Your task to perform on an android device: turn off location Image 0: 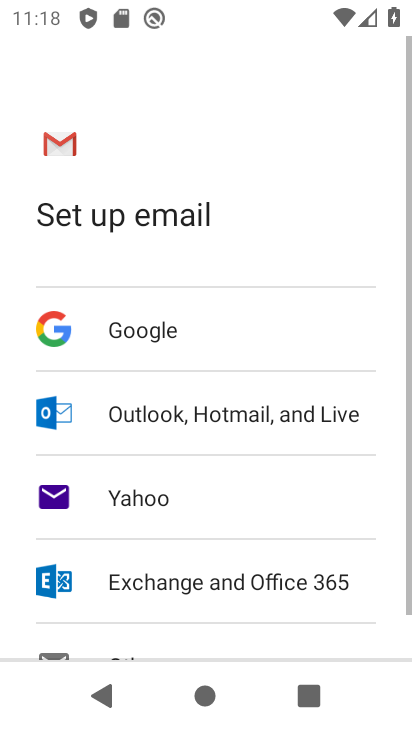
Step 0: press home button
Your task to perform on an android device: turn off location Image 1: 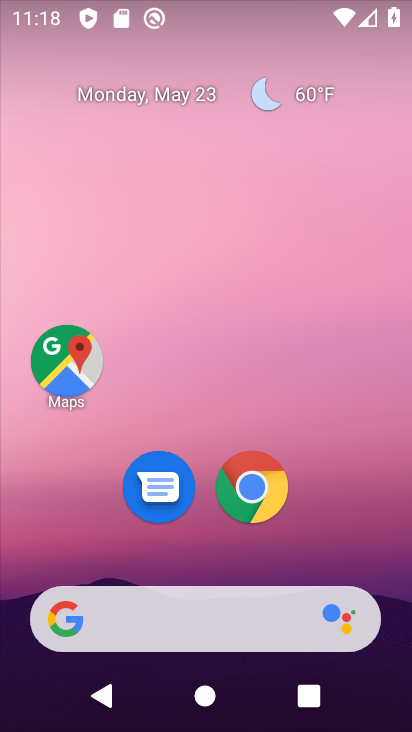
Step 1: drag from (81, 564) to (187, 87)
Your task to perform on an android device: turn off location Image 2: 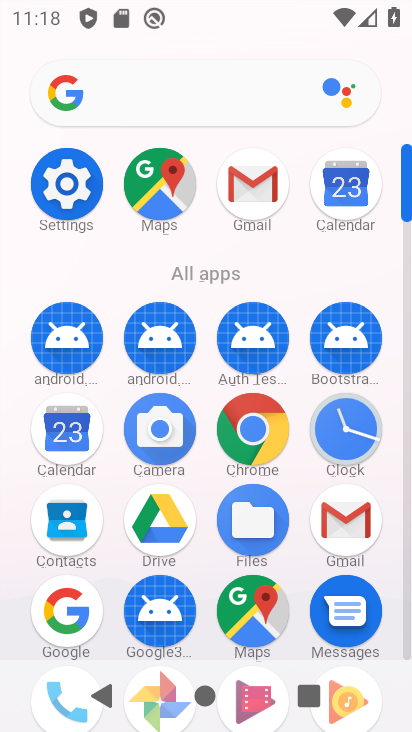
Step 2: drag from (161, 530) to (238, 279)
Your task to perform on an android device: turn off location Image 3: 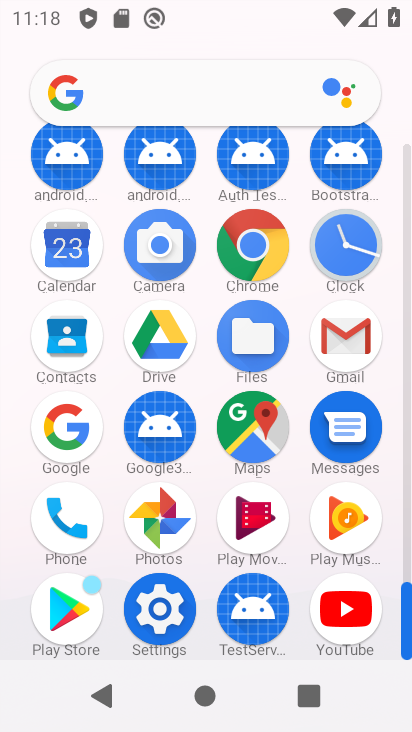
Step 3: click (172, 617)
Your task to perform on an android device: turn off location Image 4: 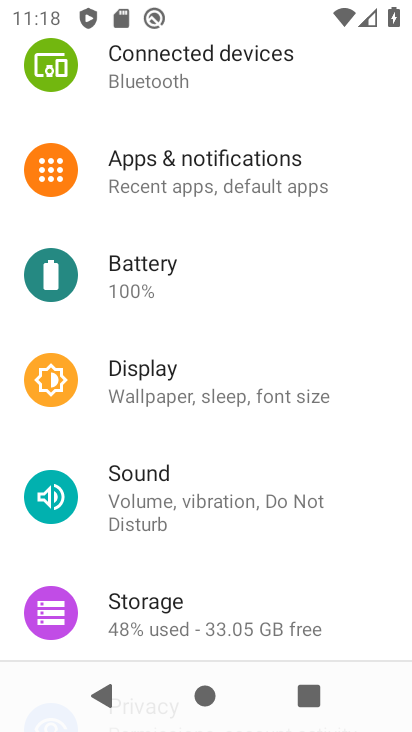
Step 4: drag from (141, 597) to (248, 222)
Your task to perform on an android device: turn off location Image 5: 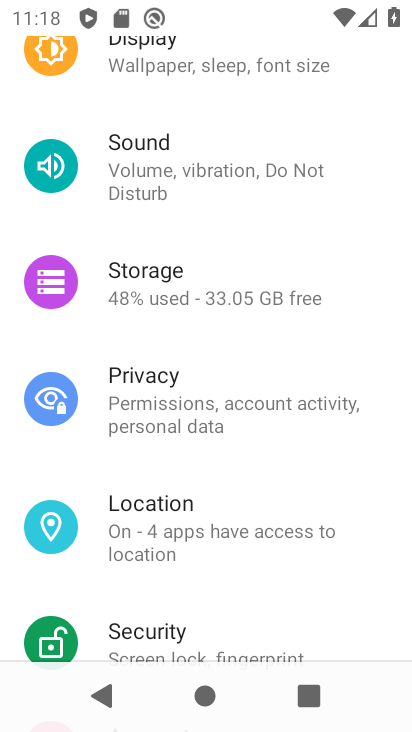
Step 5: click (202, 537)
Your task to perform on an android device: turn off location Image 6: 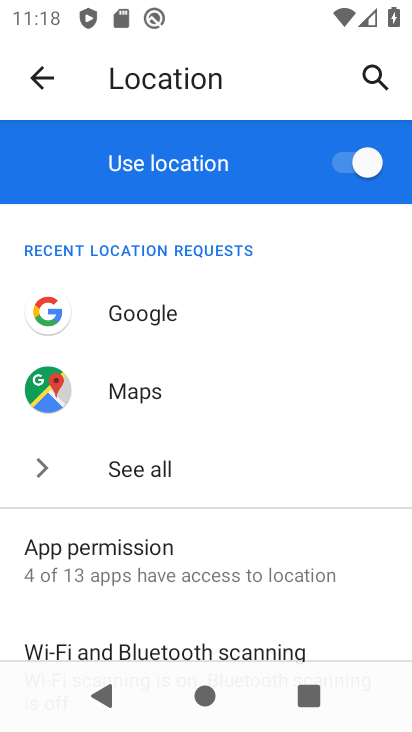
Step 6: click (352, 158)
Your task to perform on an android device: turn off location Image 7: 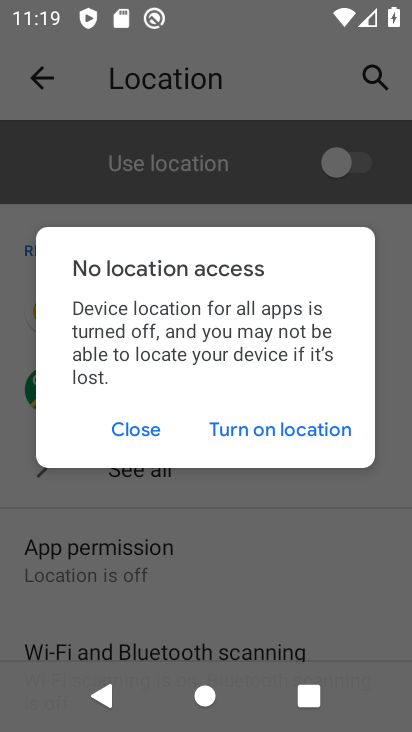
Step 7: task complete